Your task to perform on an android device: turn off notifications settings in the gmail app Image 0: 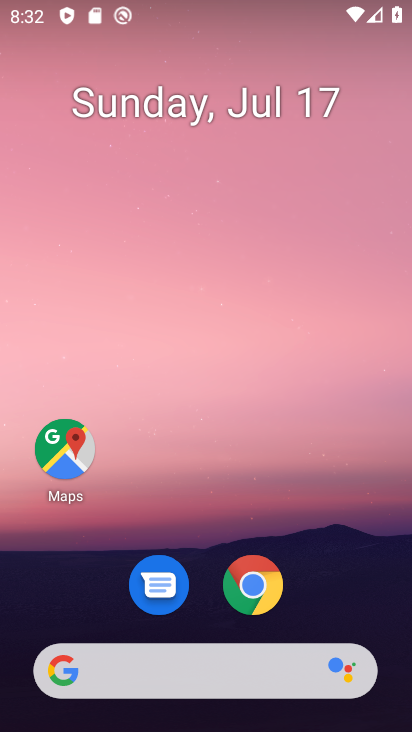
Step 0: drag from (186, 637) to (300, 124)
Your task to perform on an android device: turn off notifications settings in the gmail app Image 1: 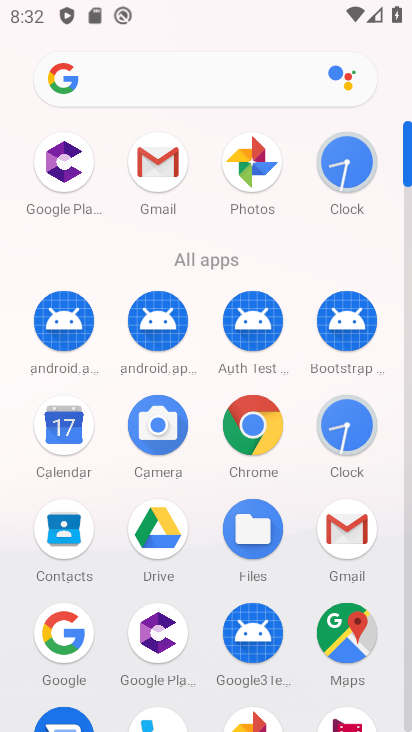
Step 1: click (150, 176)
Your task to perform on an android device: turn off notifications settings in the gmail app Image 2: 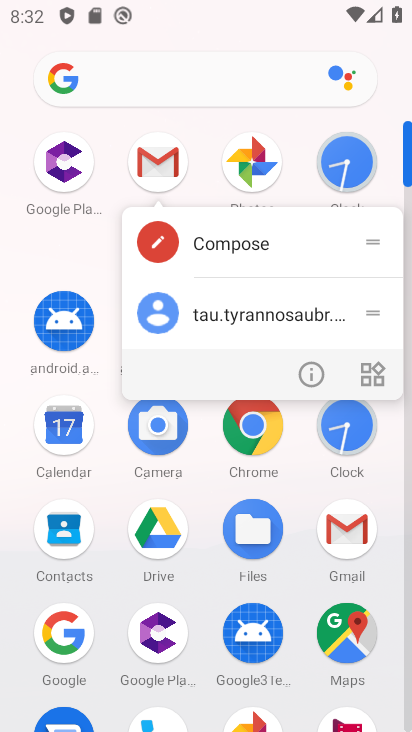
Step 2: click (156, 169)
Your task to perform on an android device: turn off notifications settings in the gmail app Image 3: 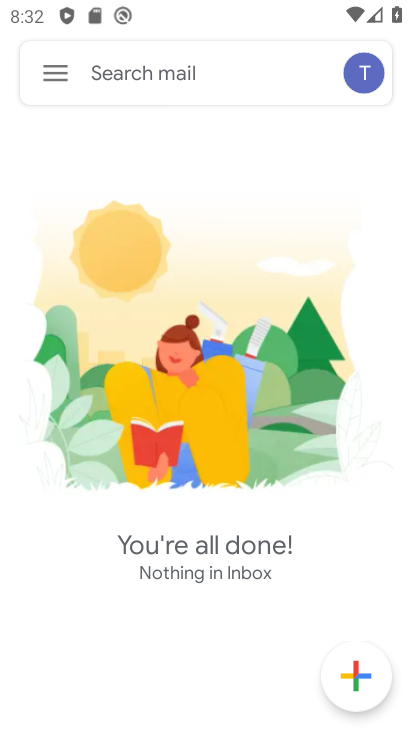
Step 3: click (49, 75)
Your task to perform on an android device: turn off notifications settings in the gmail app Image 4: 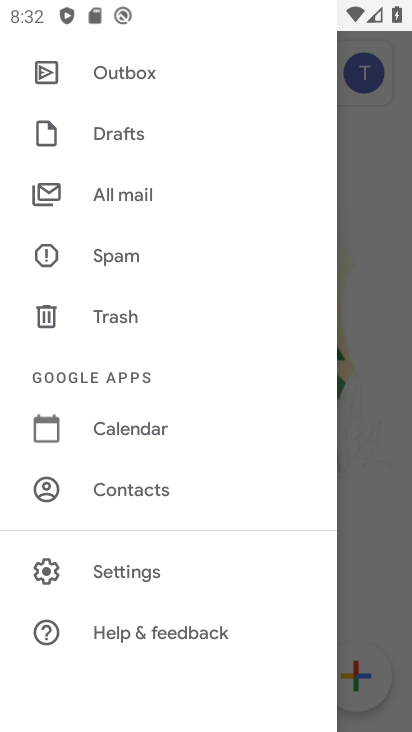
Step 4: click (153, 568)
Your task to perform on an android device: turn off notifications settings in the gmail app Image 5: 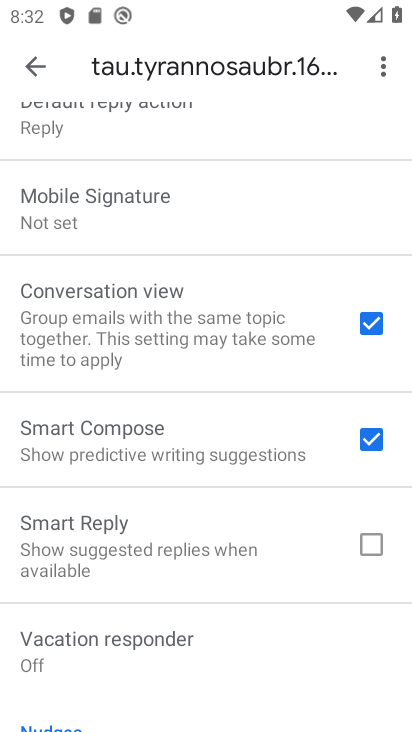
Step 5: drag from (313, 109) to (310, 597)
Your task to perform on an android device: turn off notifications settings in the gmail app Image 6: 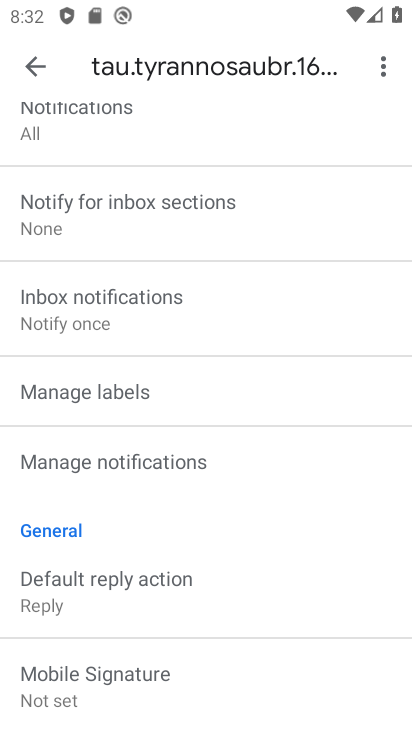
Step 6: click (73, 118)
Your task to perform on an android device: turn off notifications settings in the gmail app Image 7: 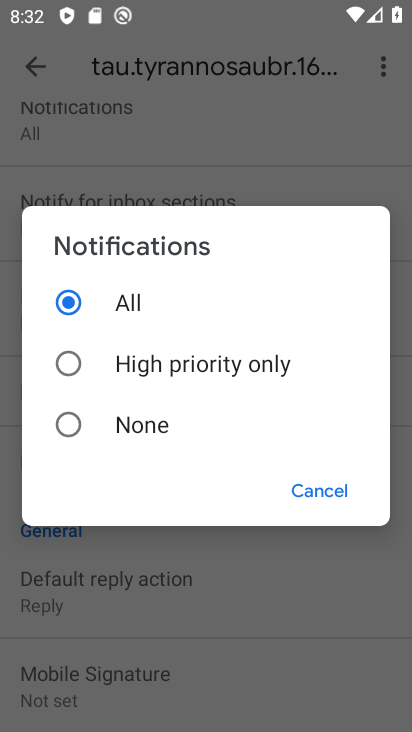
Step 7: click (64, 423)
Your task to perform on an android device: turn off notifications settings in the gmail app Image 8: 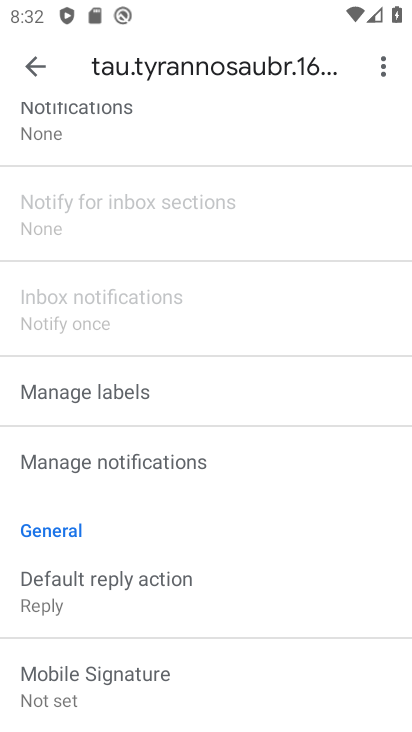
Step 8: task complete